Your task to perform on an android device: Go to calendar. Show me events next week Image 0: 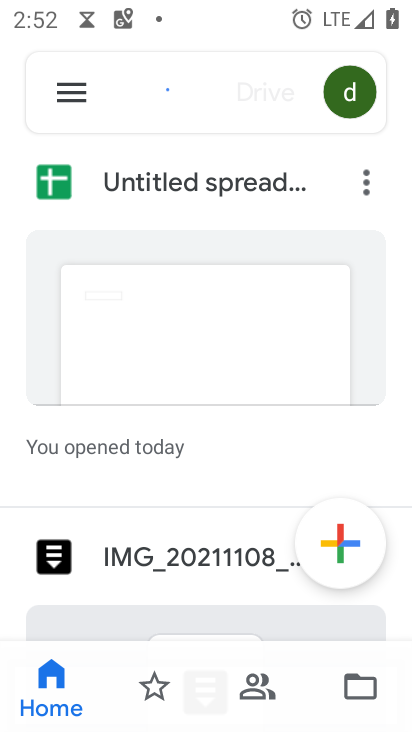
Step 0: press back button
Your task to perform on an android device: Go to calendar. Show me events next week Image 1: 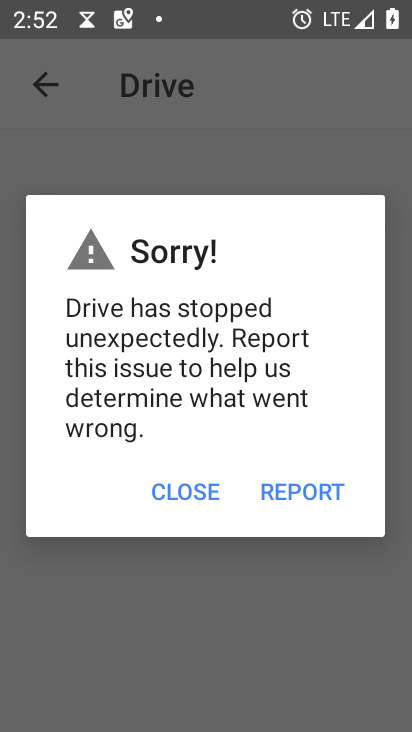
Step 1: press home button
Your task to perform on an android device: Go to calendar. Show me events next week Image 2: 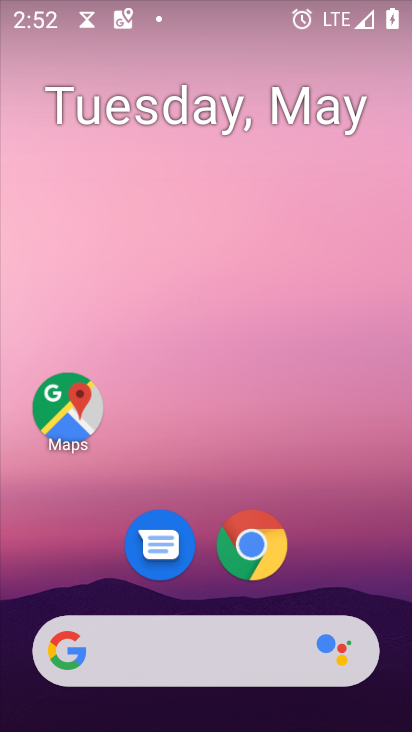
Step 2: drag from (303, 513) to (218, 4)
Your task to perform on an android device: Go to calendar. Show me events next week Image 3: 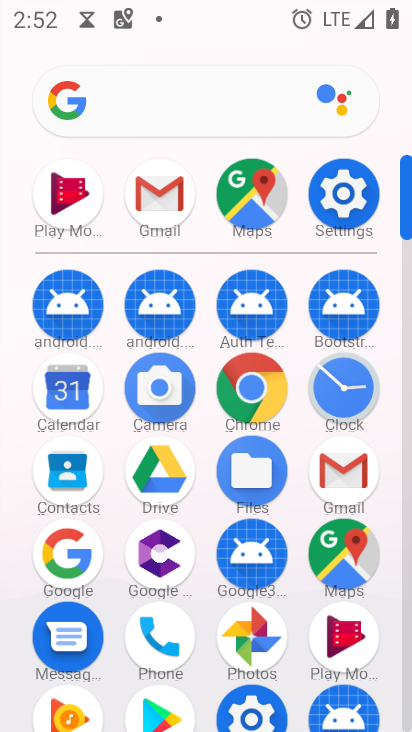
Step 3: drag from (5, 559) to (11, 208)
Your task to perform on an android device: Go to calendar. Show me events next week Image 4: 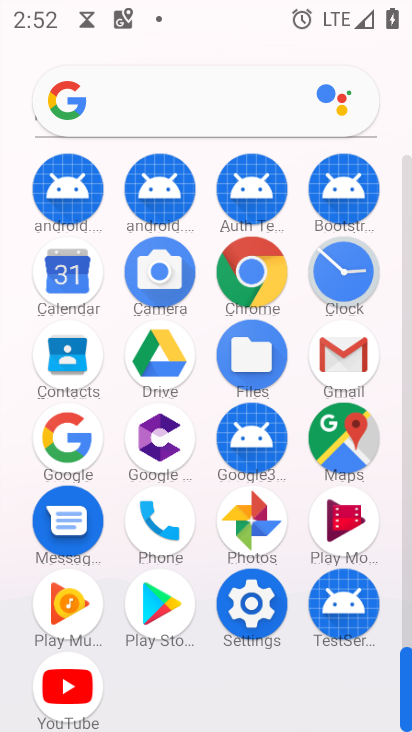
Step 4: click (67, 254)
Your task to perform on an android device: Go to calendar. Show me events next week Image 5: 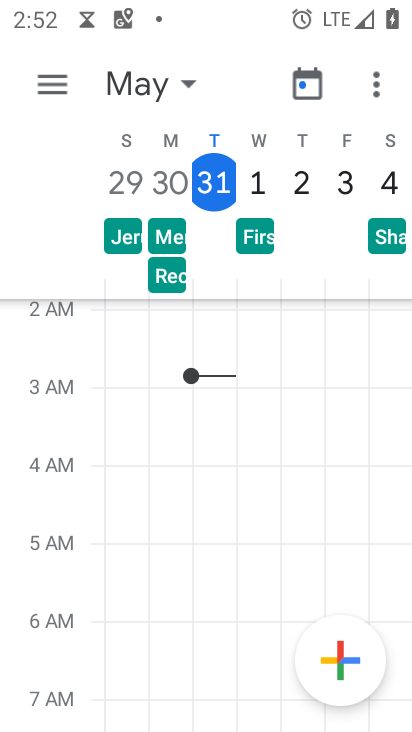
Step 5: click (301, 88)
Your task to perform on an android device: Go to calendar. Show me events next week Image 6: 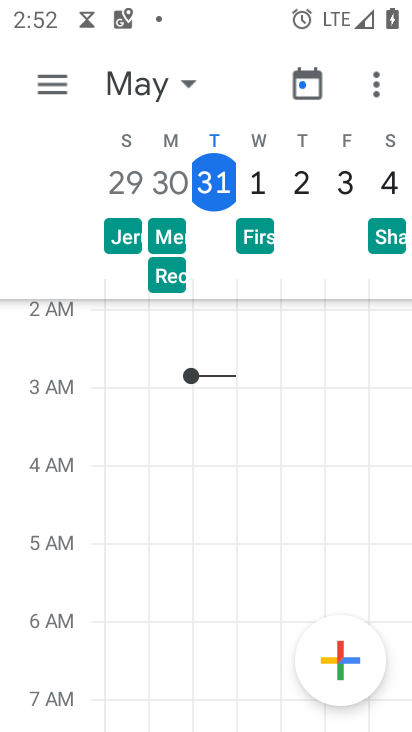
Step 6: task complete